Your task to perform on an android device: toggle improve location accuracy Image 0: 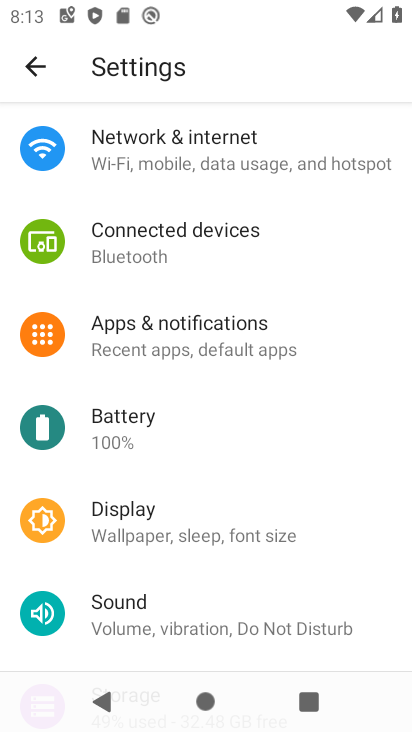
Step 0: drag from (231, 458) to (236, 252)
Your task to perform on an android device: toggle improve location accuracy Image 1: 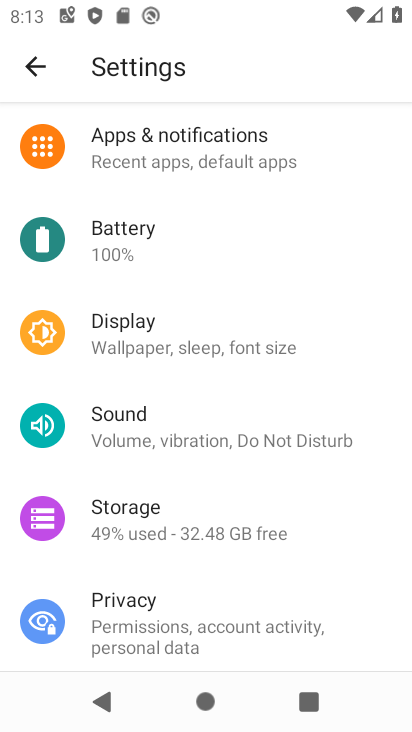
Step 1: drag from (249, 488) to (241, 247)
Your task to perform on an android device: toggle improve location accuracy Image 2: 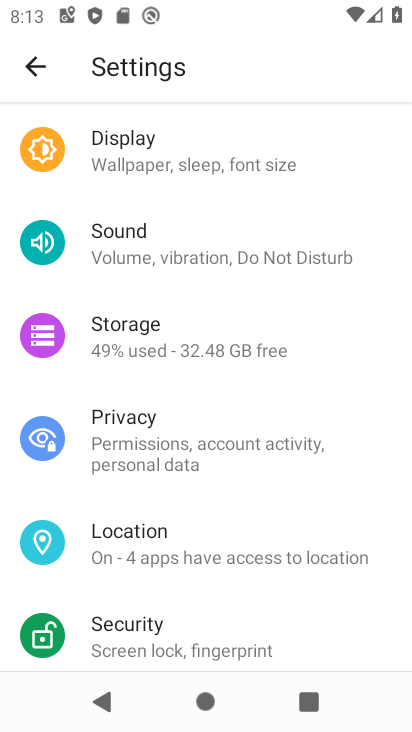
Step 2: click (214, 557)
Your task to perform on an android device: toggle improve location accuracy Image 3: 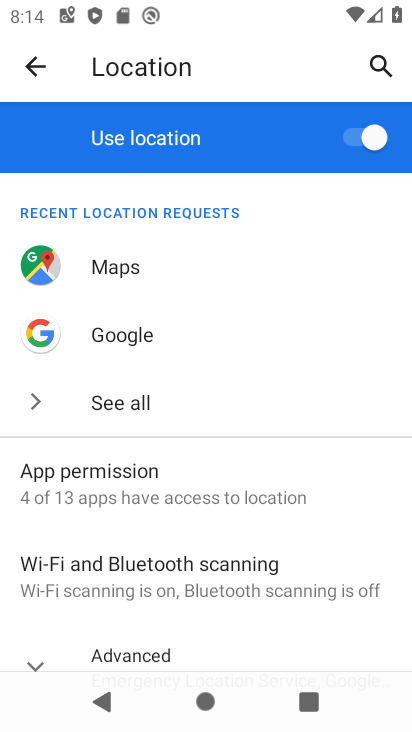
Step 3: drag from (171, 504) to (226, 239)
Your task to perform on an android device: toggle improve location accuracy Image 4: 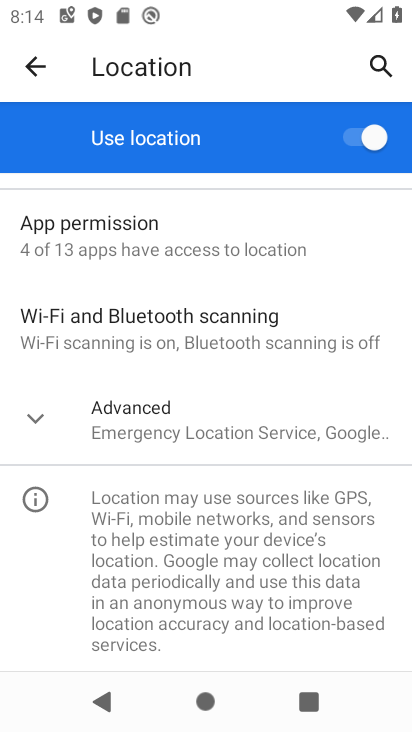
Step 4: click (35, 418)
Your task to perform on an android device: toggle improve location accuracy Image 5: 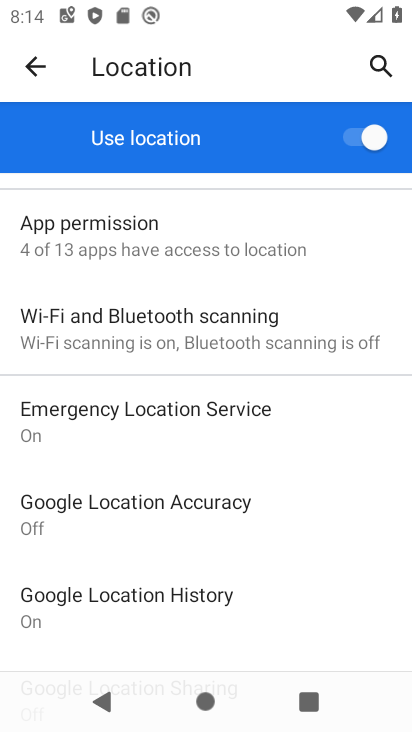
Step 5: click (213, 506)
Your task to perform on an android device: toggle improve location accuracy Image 6: 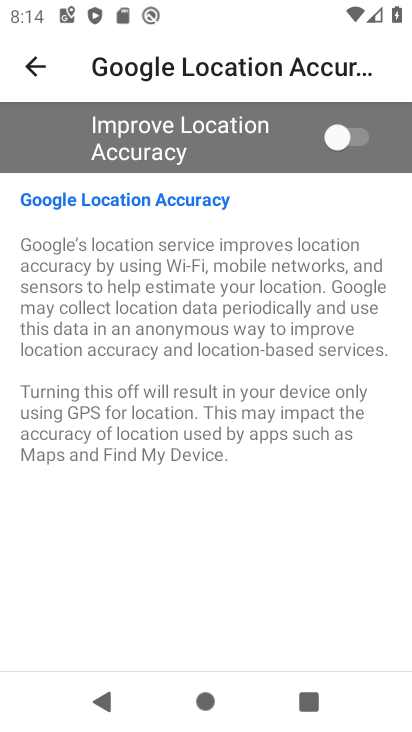
Step 6: click (361, 143)
Your task to perform on an android device: toggle improve location accuracy Image 7: 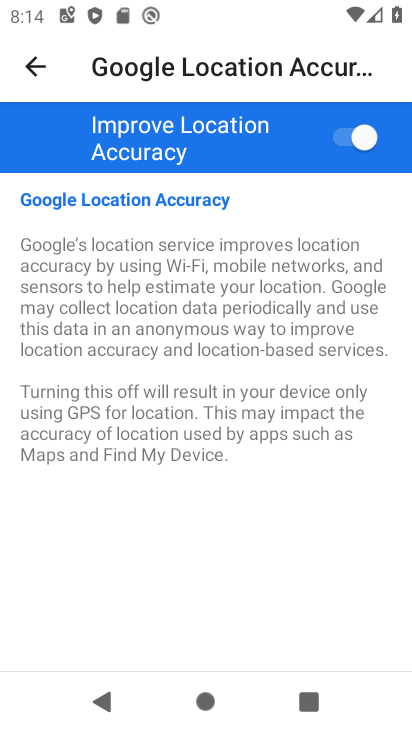
Step 7: task complete